Your task to perform on an android device: Go to network settings Image 0: 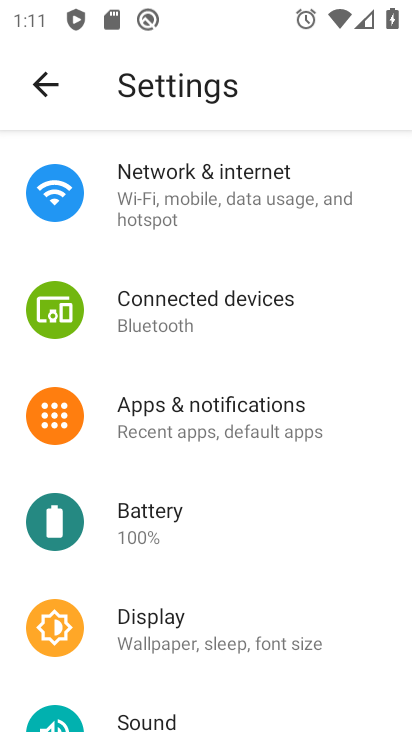
Step 0: press home button
Your task to perform on an android device: Go to network settings Image 1: 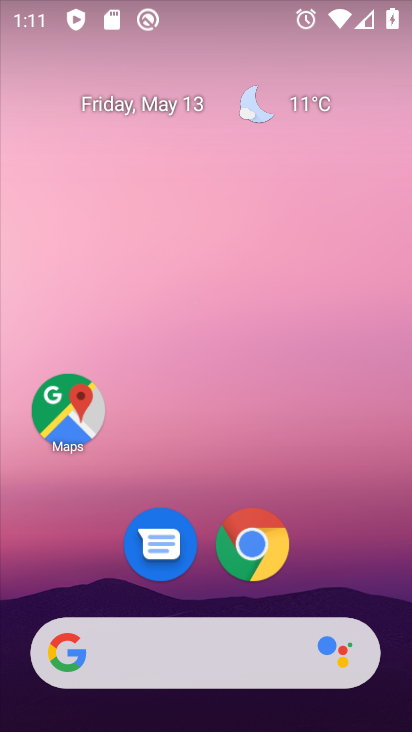
Step 1: drag from (155, 532) to (163, 235)
Your task to perform on an android device: Go to network settings Image 2: 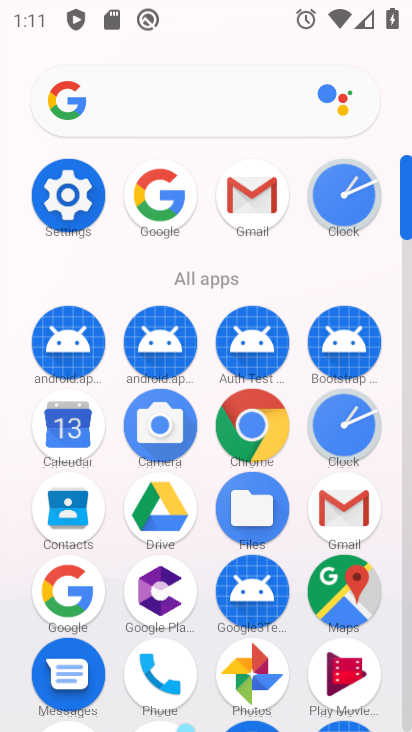
Step 2: click (73, 192)
Your task to perform on an android device: Go to network settings Image 3: 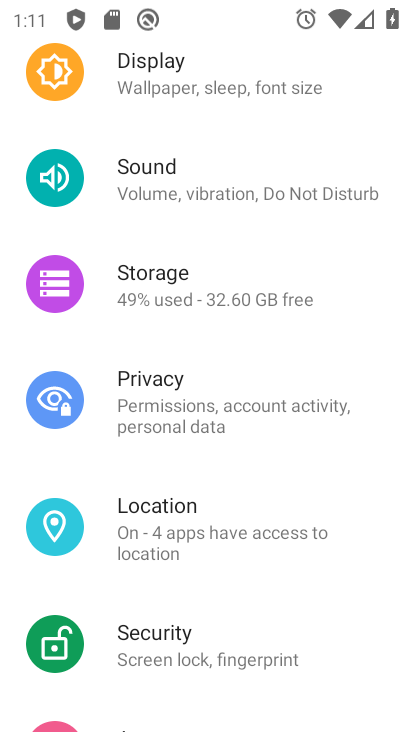
Step 3: drag from (233, 131) to (229, 505)
Your task to perform on an android device: Go to network settings Image 4: 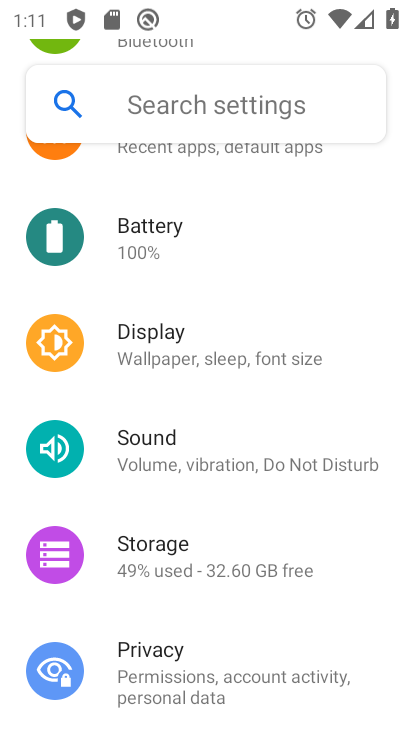
Step 4: drag from (226, 209) to (242, 554)
Your task to perform on an android device: Go to network settings Image 5: 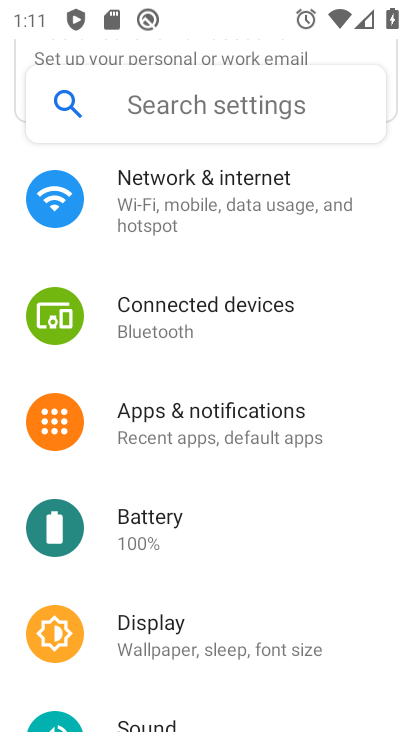
Step 5: click (199, 185)
Your task to perform on an android device: Go to network settings Image 6: 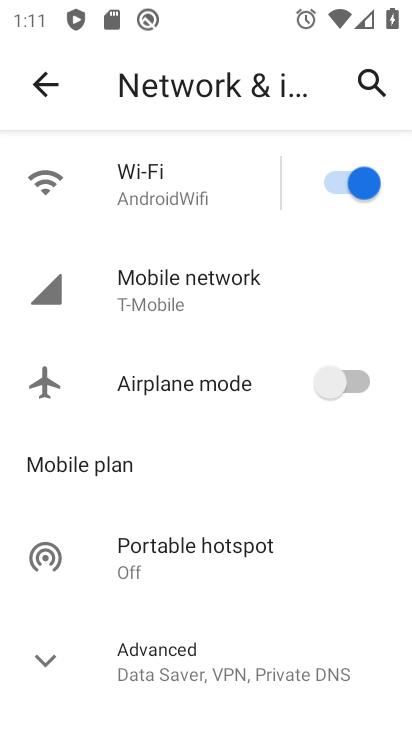
Step 6: click (173, 313)
Your task to perform on an android device: Go to network settings Image 7: 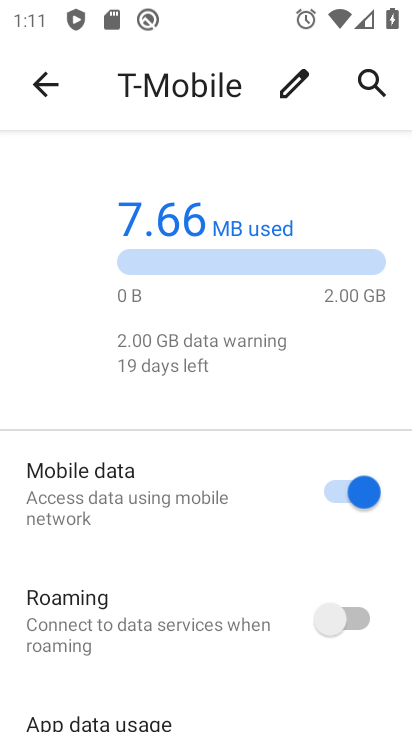
Step 7: task complete